Your task to perform on an android device: turn on sleep mode Image 0: 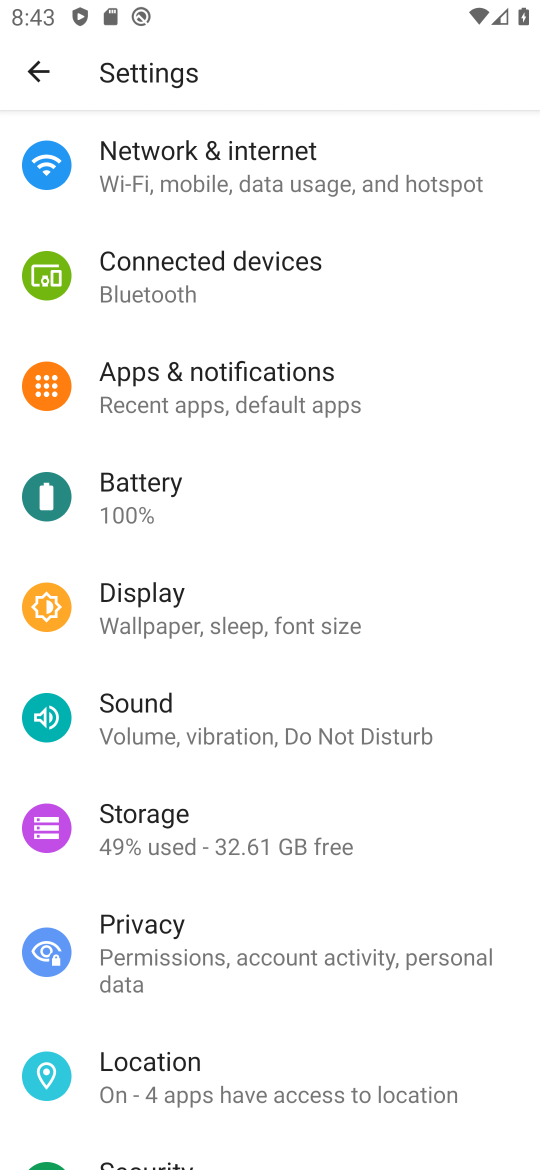
Step 0: click (265, 624)
Your task to perform on an android device: turn on sleep mode Image 1: 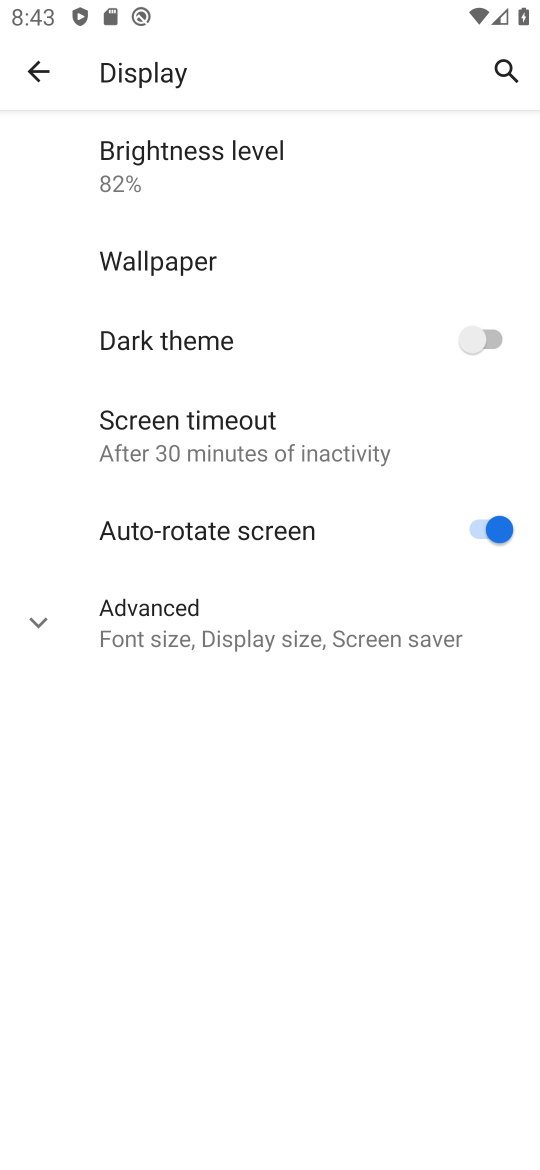
Step 1: click (45, 613)
Your task to perform on an android device: turn on sleep mode Image 2: 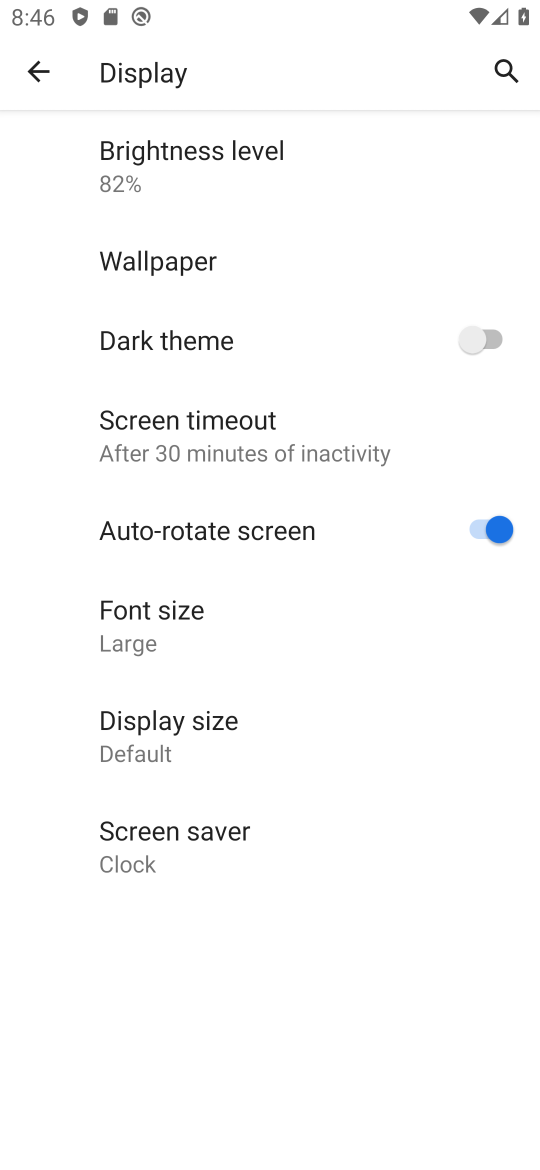
Step 2: task complete